Your task to perform on an android device: Search for vegetarian restaurants on Maps Image 0: 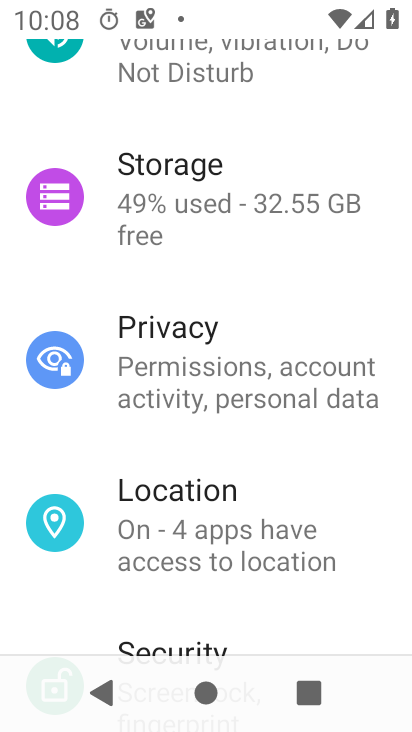
Step 0: press home button
Your task to perform on an android device: Search for vegetarian restaurants on Maps Image 1: 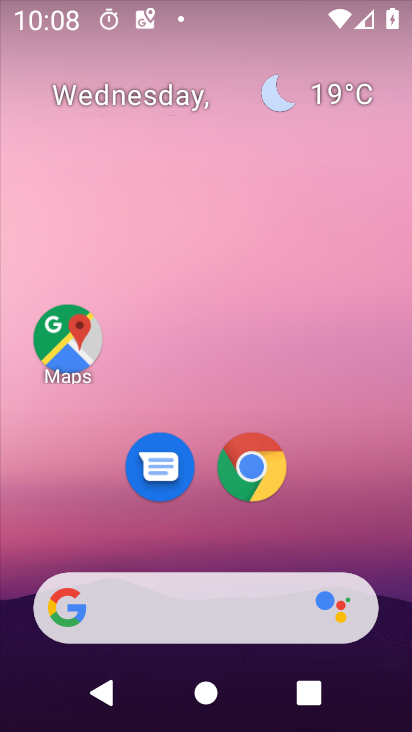
Step 1: click (87, 347)
Your task to perform on an android device: Search for vegetarian restaurants on Maps Image 2: 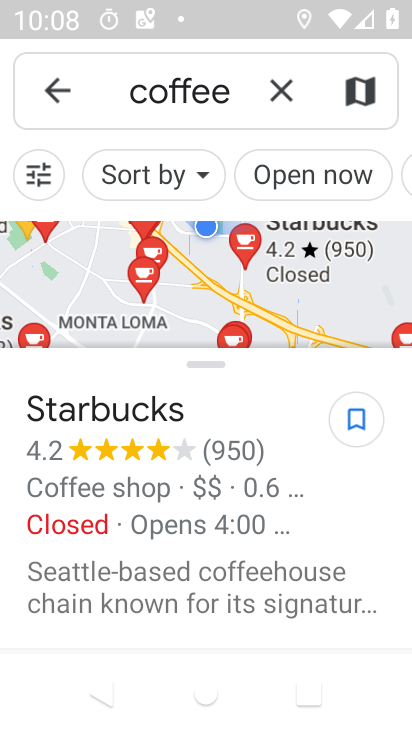
Step 2: click (283, 86)
Your task to perform on an android device: Search for vegetarian restaurants on Maps Image 3: 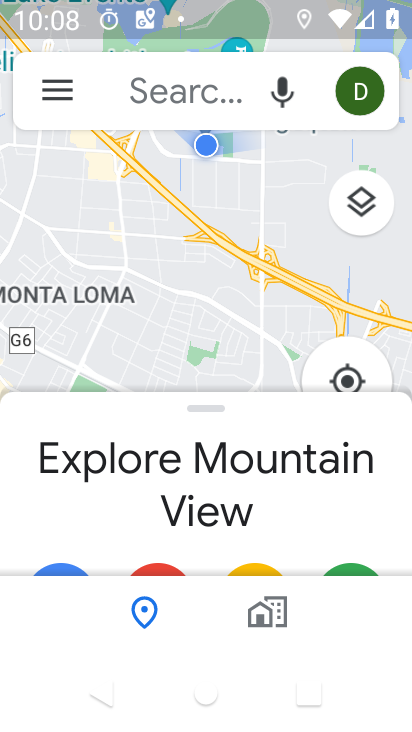
Step 3: click (159, 84)
Your task to perform on an android device: Search for vegetarian restaurants on Maps Image 4: 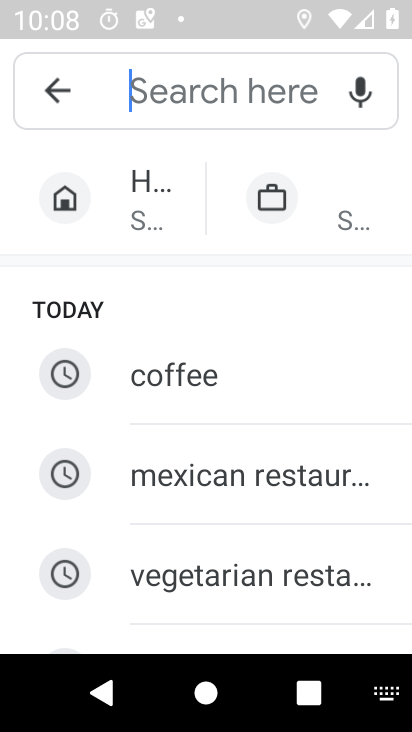
Step 4: click (247, 569)
Your task to perform on an android device: Search for vegetarian restaurants on Maps Image 5: 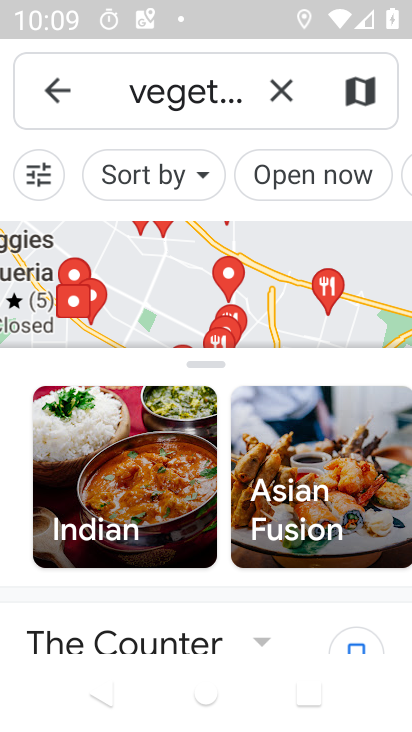
Step 5: task complete